Your task to perform on an android device: Go to Amazon Image 0: 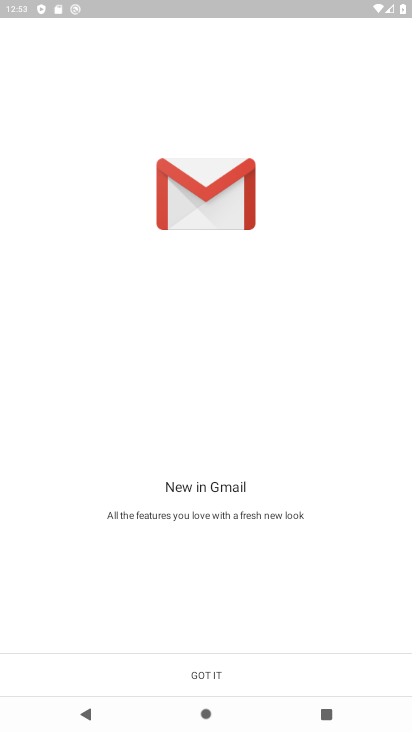
Step 0: click (233, 695)
Your task to perform on an android device: Go to Amazon Image 1: 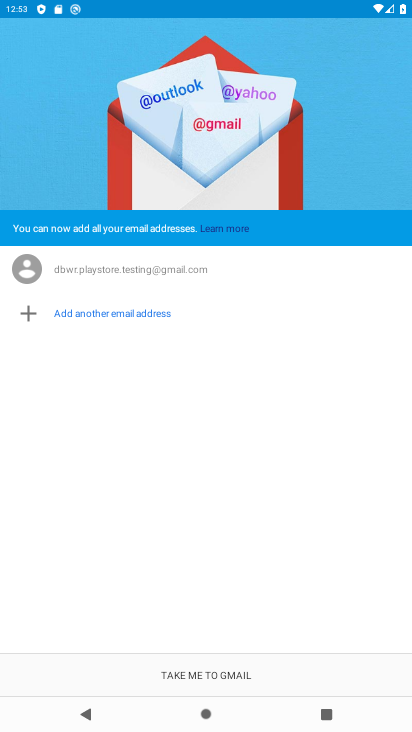
Step 1: click (237, 675)
Your task to perform on an android device: Go to Amazon Image 2: 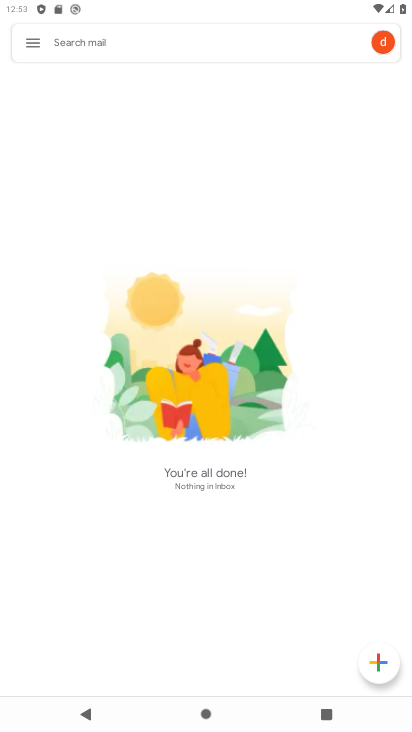
Step 2: press home button
Your task to perform on an android device: Go to Amazon Image 3: 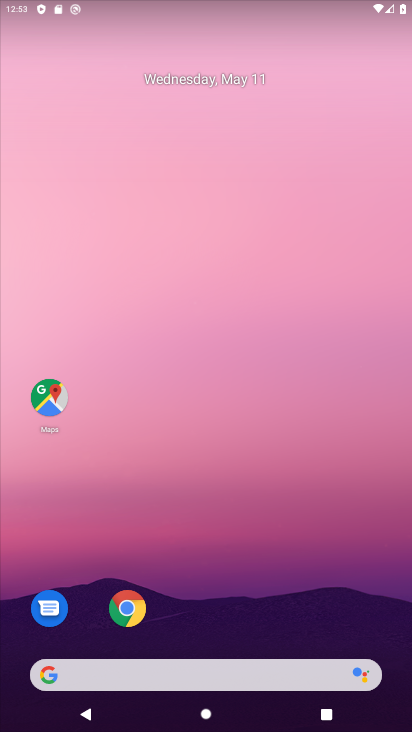
Step 3: click (128, 619)
Your task to perform on an android device: Go to Amazon Image 4: 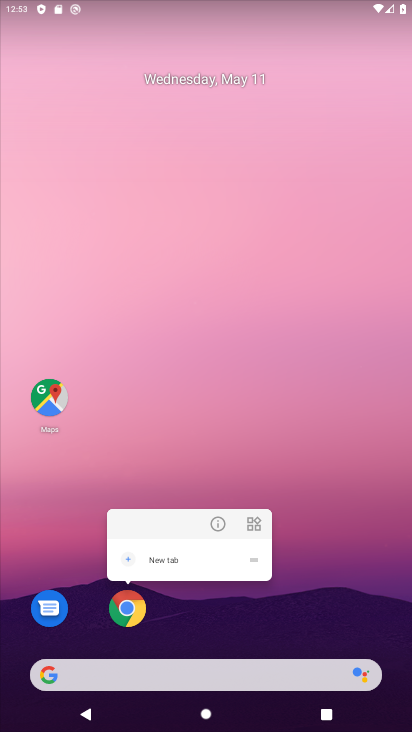
Step 4: click (128, 619)
Your task to perform on an android device: Go to Amazon Image 5: 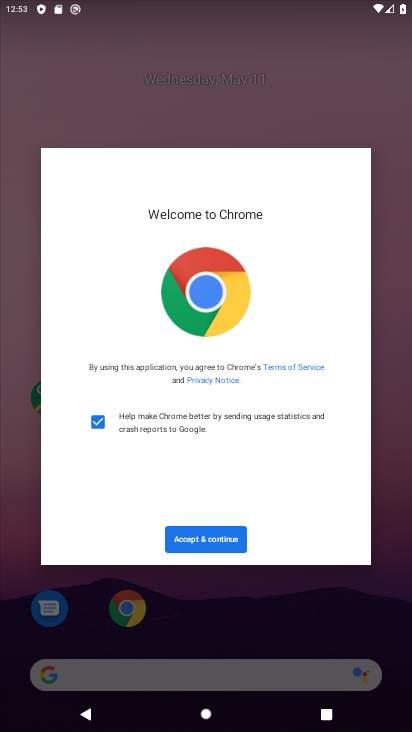
Step 5: click (192, 539)
Your task to perform on an android device: Go to Amazon Image 6: 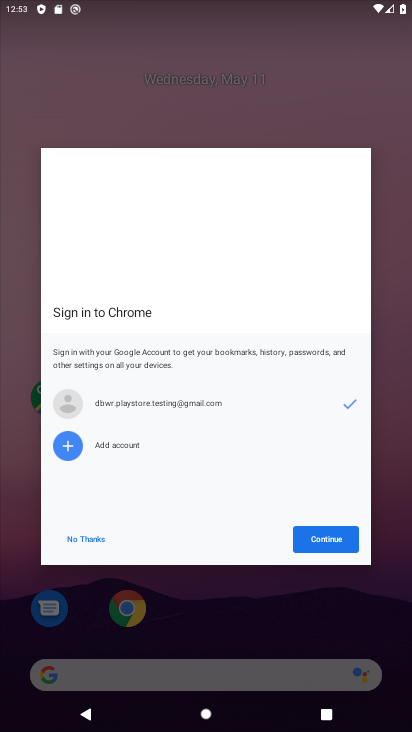
Step 6: click (317, 542)
Your task to perform on an android device: Go to Amazon Image 7: 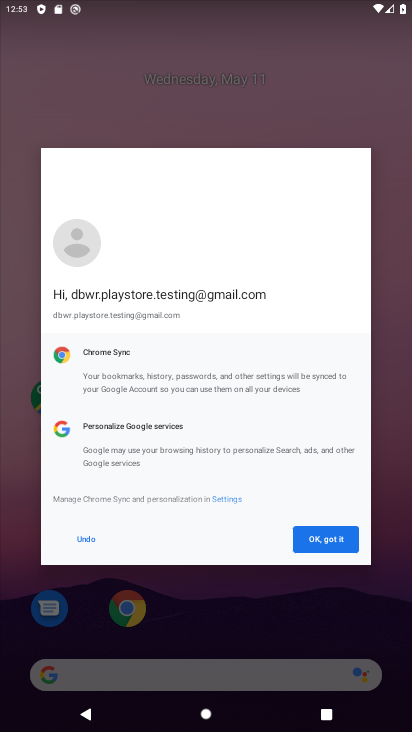
Step 7: click (317, 542)
Your task to perform on an android device: Go to Amazon Image 8: 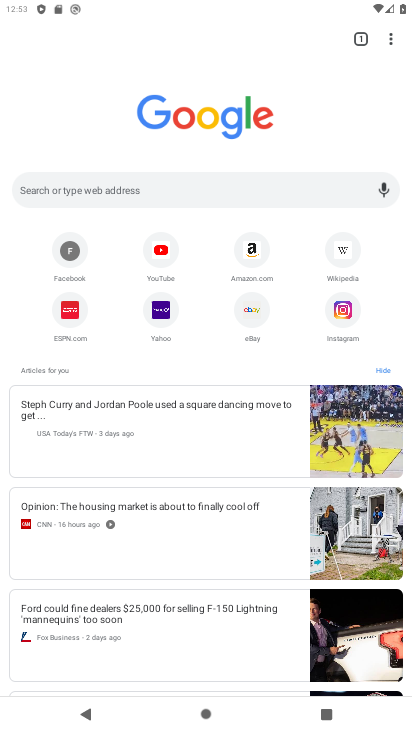
Step 8: click (249, 264)
Your task to perform on an android device: Go to Amazon Image 9: 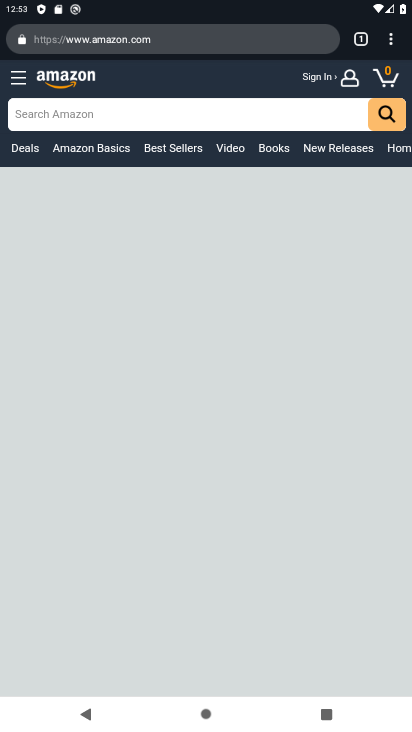
Step 9: task complete